Your task to perform on an android device: visit the assistant section in the google photos Image 0: 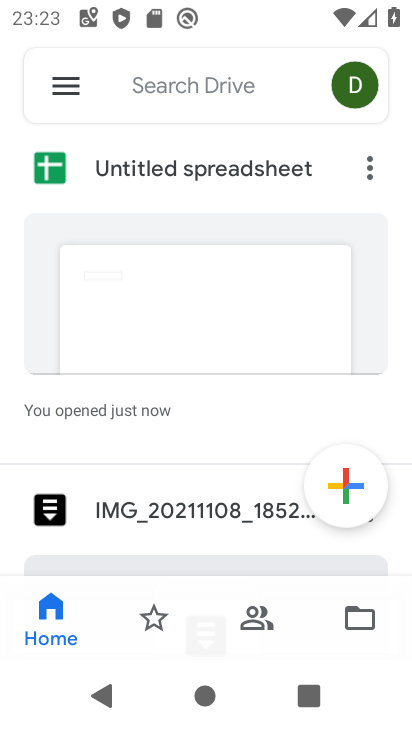
Step 0: press back button
Your task to perform on an android device: visit the assistant section in the google photos Image 1: 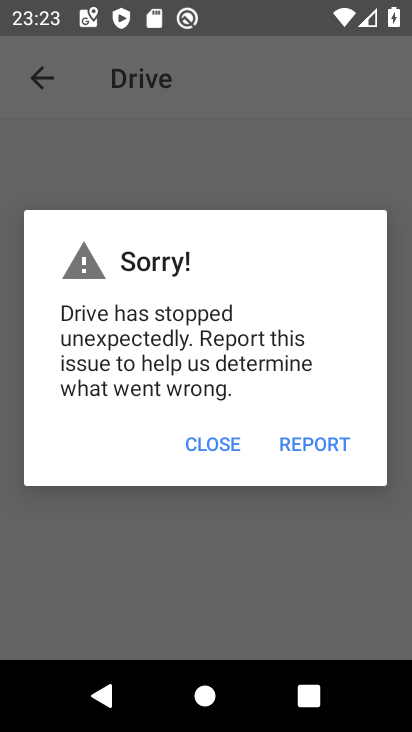
Step 1: press back button
Your task to perform on an android device: visit the assistant section in the google photos Image 2: 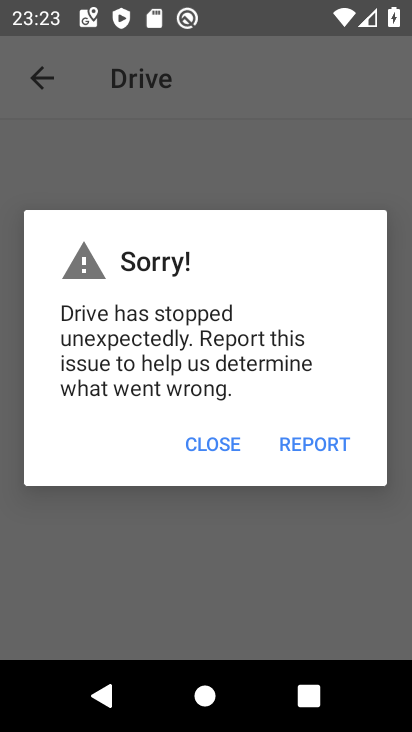
Step 2: press home button
Your task to perform on an android device: visit the assistant section in the google photos Image 3: 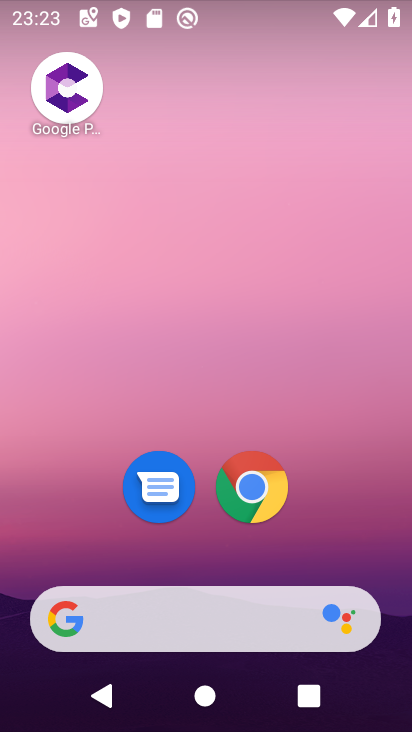
Step 3: drag from (215, 479) to (277, 51)
Your task to perform on an android device: visit the assistant section in the google photos Image 4: 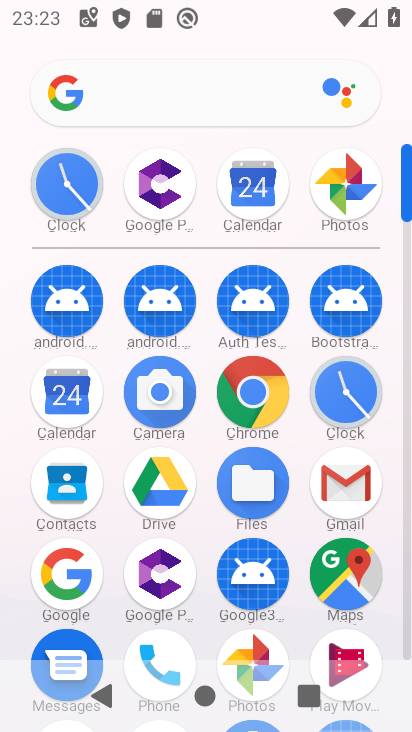
Step 4: click (248, 647)
Your task to perform on an android device: visit the assistant section in the google photos Image 5: 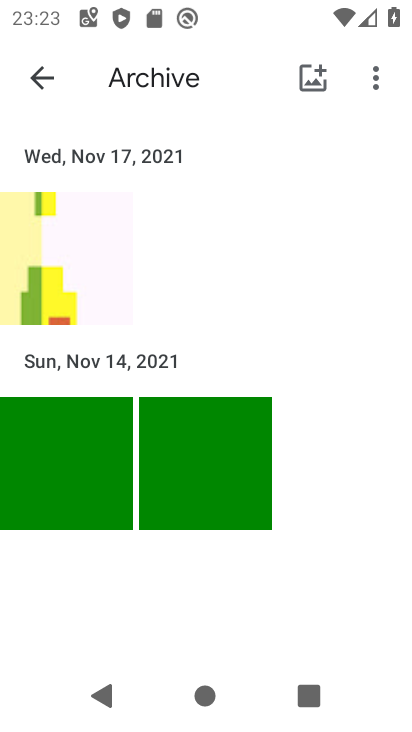
Step 5: click (37, 65)
Your task to perform on an android device: visit the assistant section in the google photos Image 6: 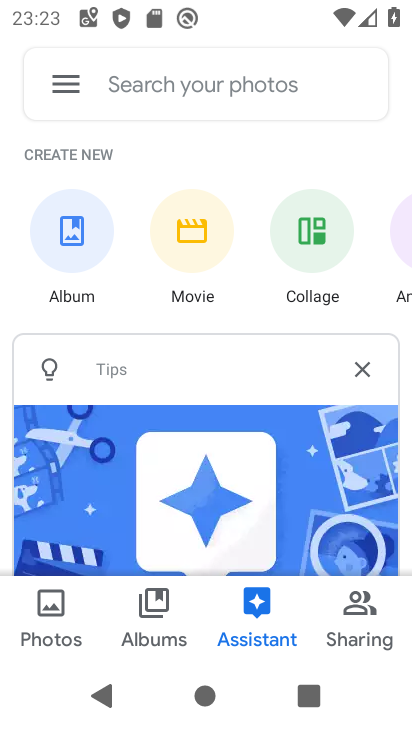
Step 6: click (261, 631)
Your task to perform on an android device: visit the assistant section in the google photos Image 7: 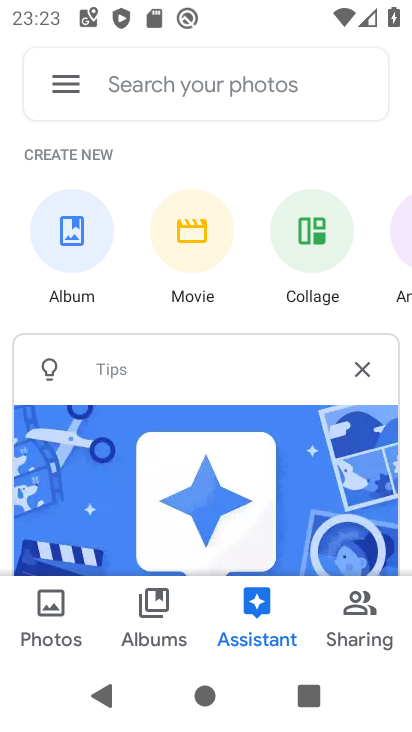
Step 7: task complete